Your task to perform on an android device: open app "Microsoft Outlook" (install if not already installed) and go to login screen Image 0: 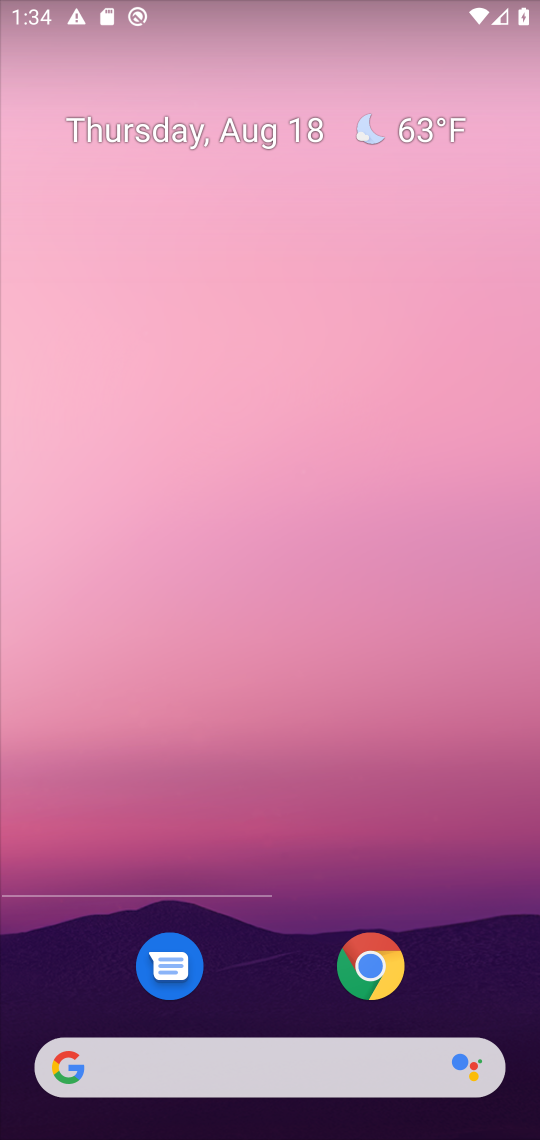
Step 0: press home button
Your task to perform on an android device: open app "Microsoft Outlook" (install if not already installed) and go to login screen Image 1: 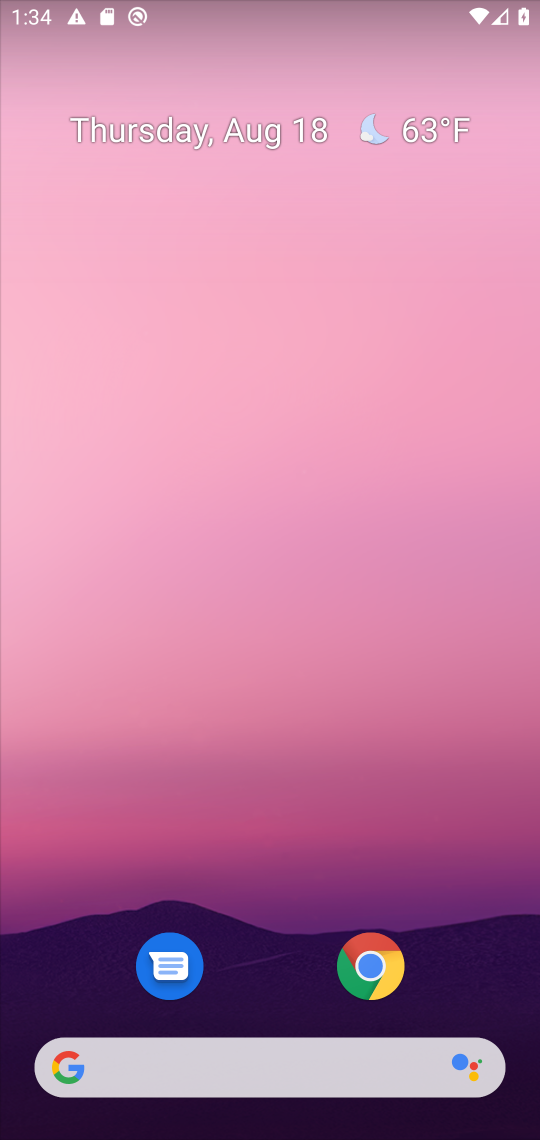
Step 1: drag from (265, 1009) to (300, 55)
Your task to perform on an android device: open app "Microsoft Outlook" (install if not already installed) and go to login screen Image 2: 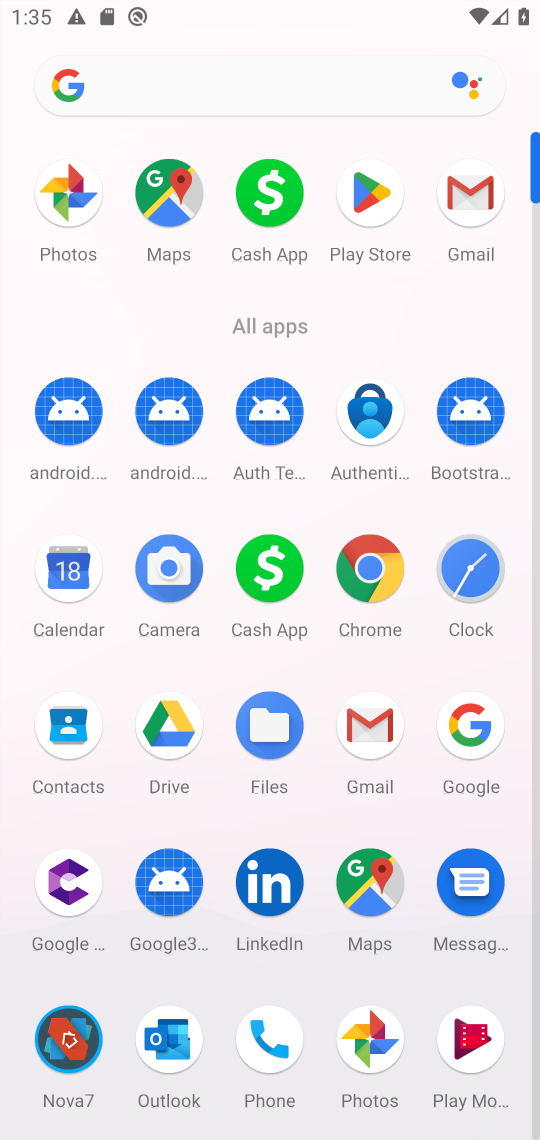
Step 2: click (360, 179)
Your task to perform on an android device: open app "Microsoft Outlook" (install if not already installed) and go to login screen Image 3: 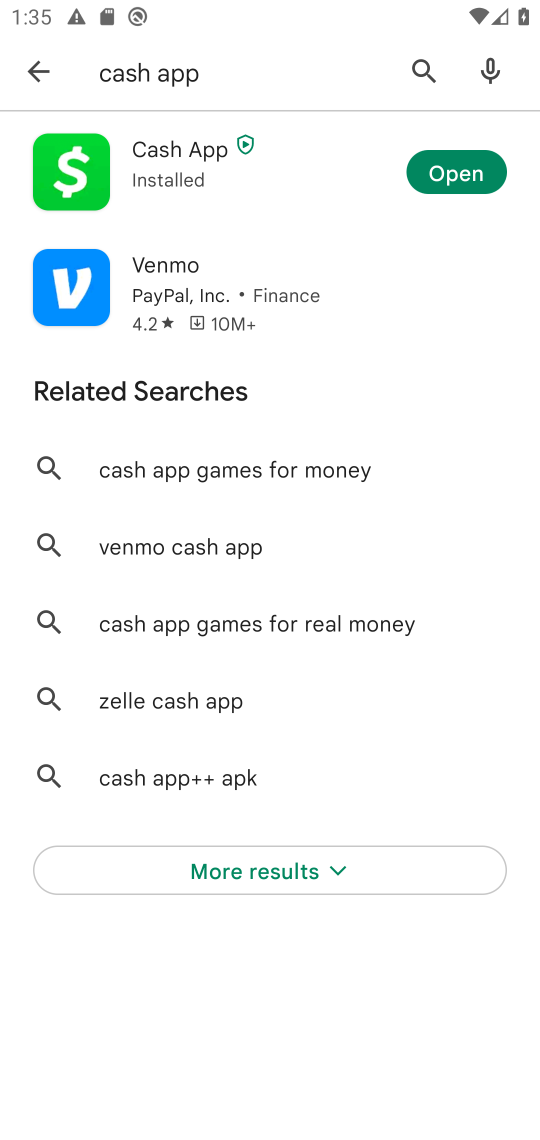
Step 3: click (423, 79)
Your task to perform on an android device: open app "Microsoft Outlook" (install if not already installed) and go to login screen Image 4: 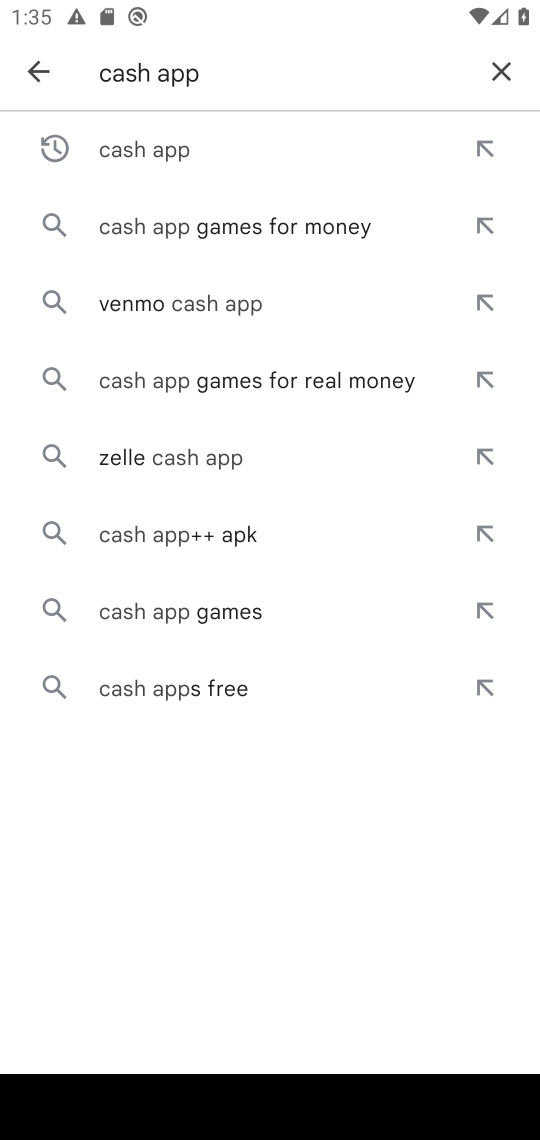
Step 4: click (499, 77)
Your task to perform on an android device: open app "Microsoft Outlook" (install if not already installed) and go to login screen Image 5: 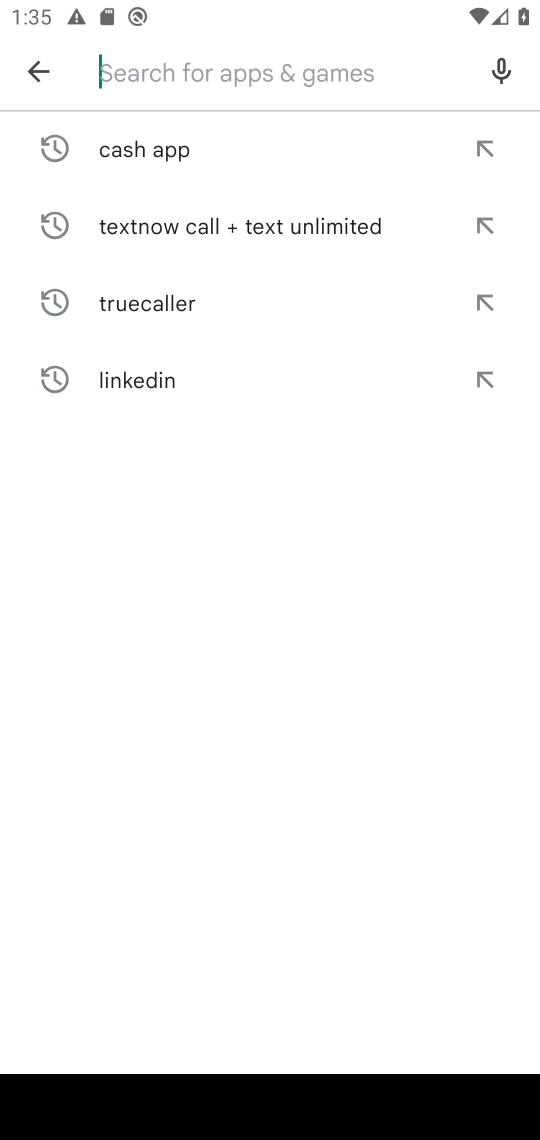
Step 5: type "Microsoft Outlook"
Your task to perform on an android device: open app "Microsoft Outlook" (install if not already installed) and go to login screen Image 6: 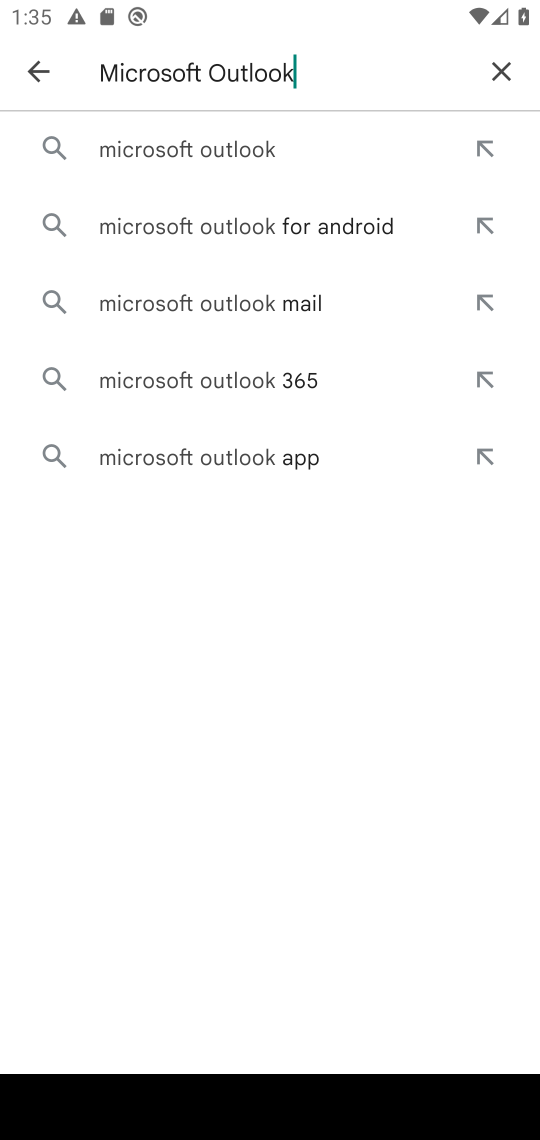
Step 6: click (280, 139)
Your task to perform on an android device: open app "Microsoft Outlook" (install if not already installed) and go to login screen Image 7: 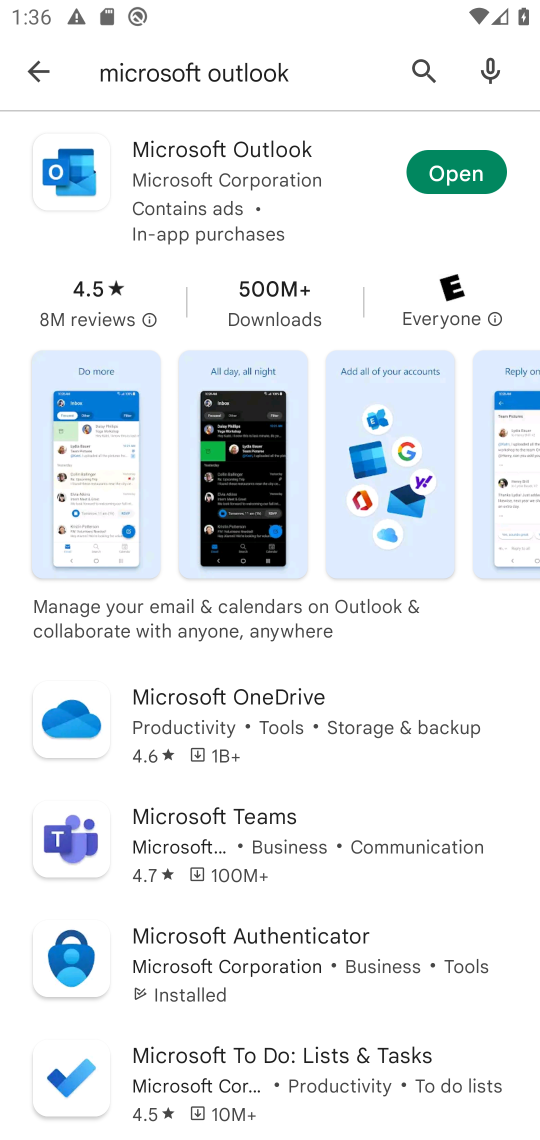
Step 7: click (453, 168)
Your task to perform on an android device: open app "Microsoft Outlook" (install if not already installed) and go to login screen Image 8: 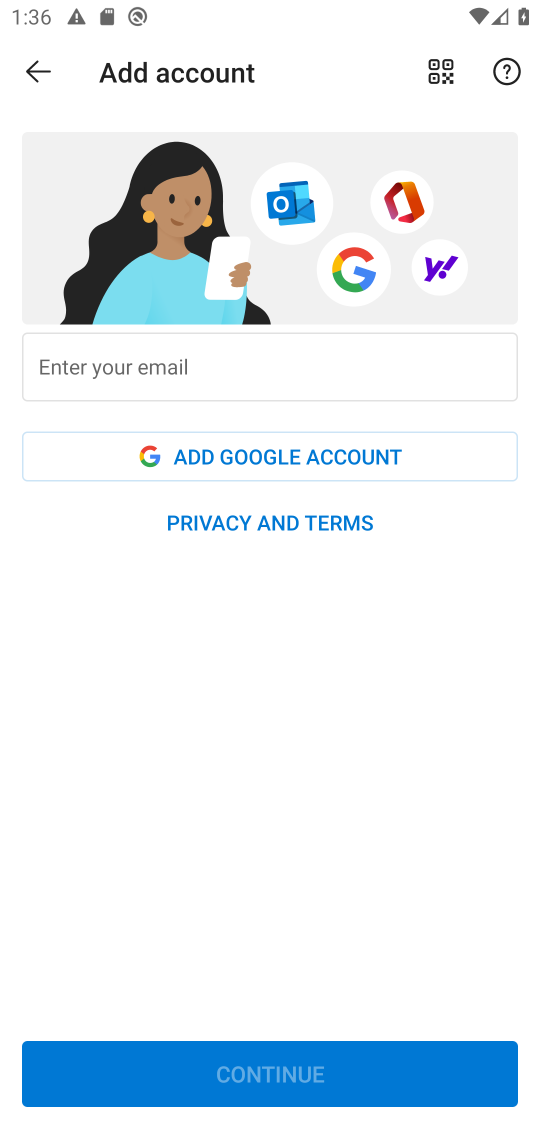
Step 8: task complete